Your task to perform on an android device: turn on airplane mode Image 0: 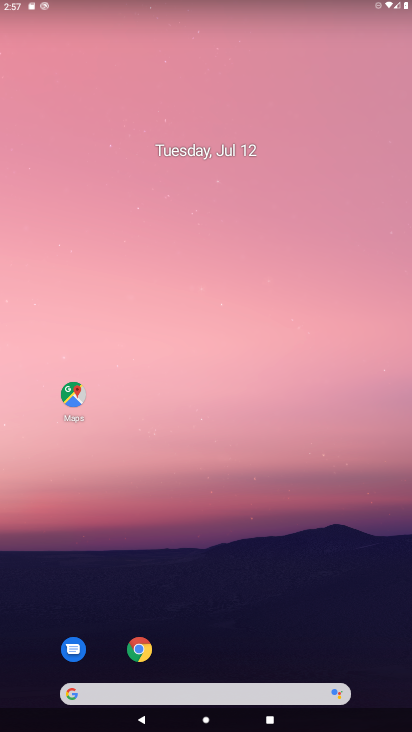
Step 0: drag from (277, 614) to (225, 123)
Your task to perform on an android device: turn on airplane mode Image 1: 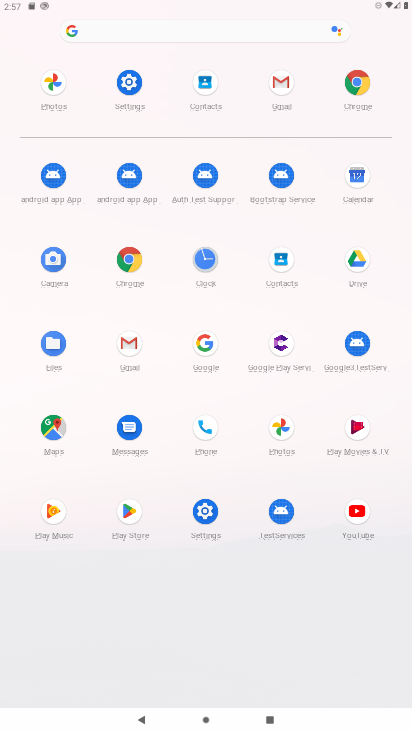
Step 1: click (132, 94)
Your task to perform on an android device: turn on airplane mode Image 2: 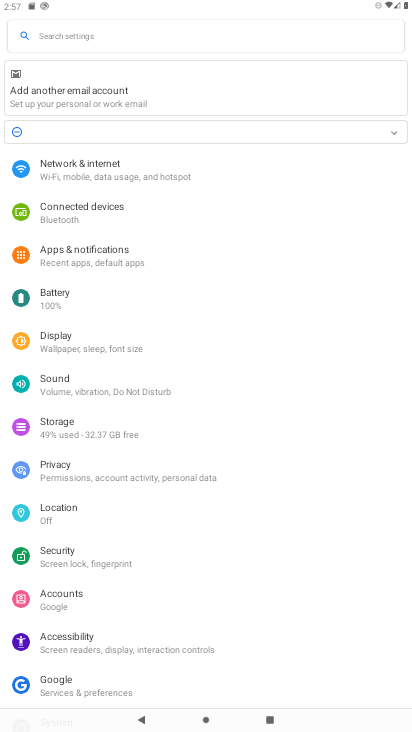
Step 2: click (132, 191)
Your task to perform on an android device: turn on airplane mode Image 3: 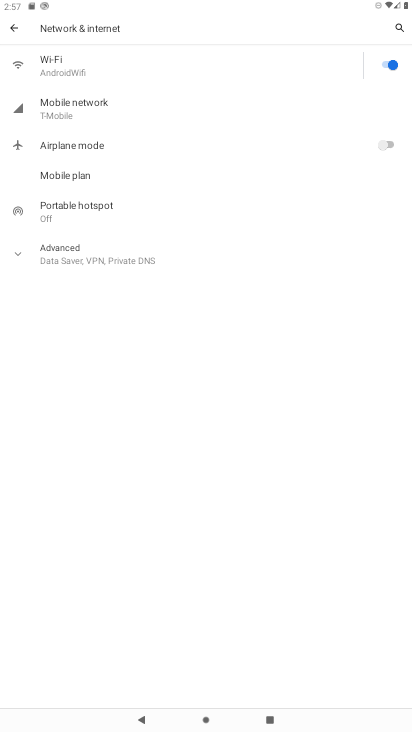
Step 3: click (386, 146)
Your task to perform on an android device: turn on airplane mode Image 4: 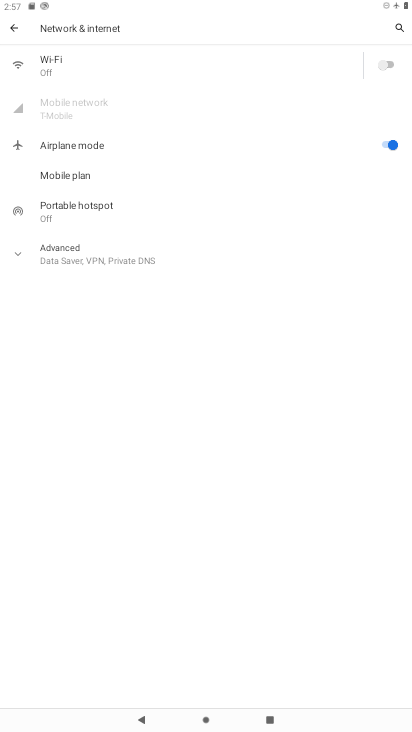
Step 4: click (386, 146)
Your task to perform on an android device: turn on airplane mode Image 5: 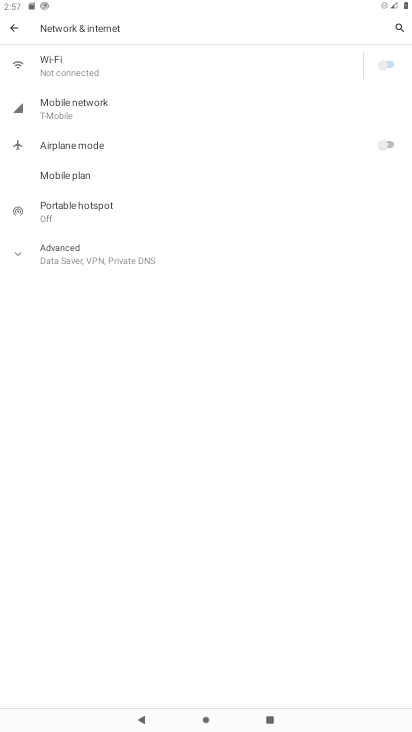
Step 5: task complete